Your task to perform on an android device: Go to eBay Image 0: 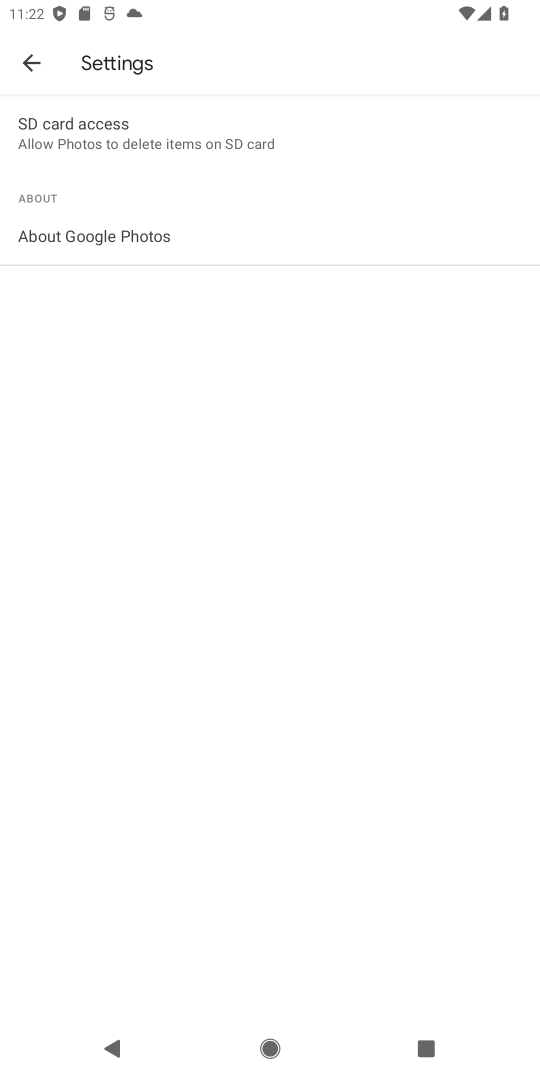
Step 0: press home button
Your task to perform on an android device: Go to eBay Image 1: 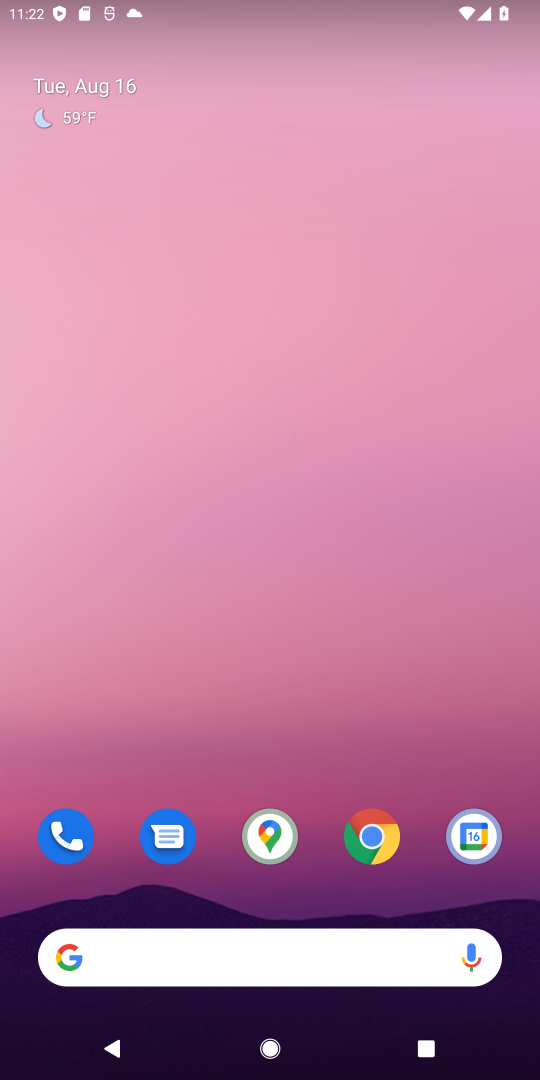
Step 1: drag from (207, 966) to (250, 132)
Your task to perform on an android device: Go to eBay Image 2: 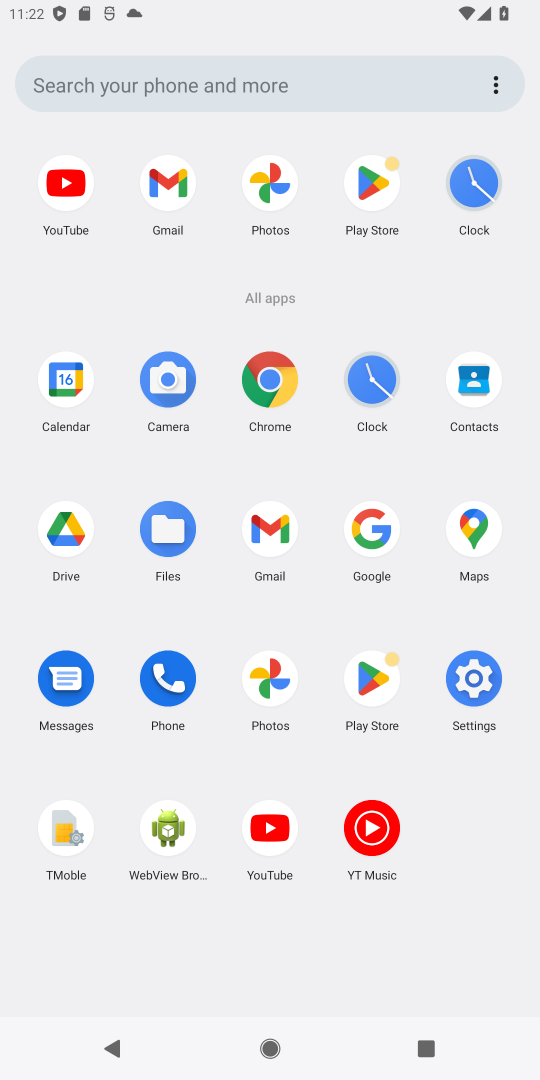
Step 2: click (367, 533)
Your task to perform on an android device: Go to eBay Image 3: 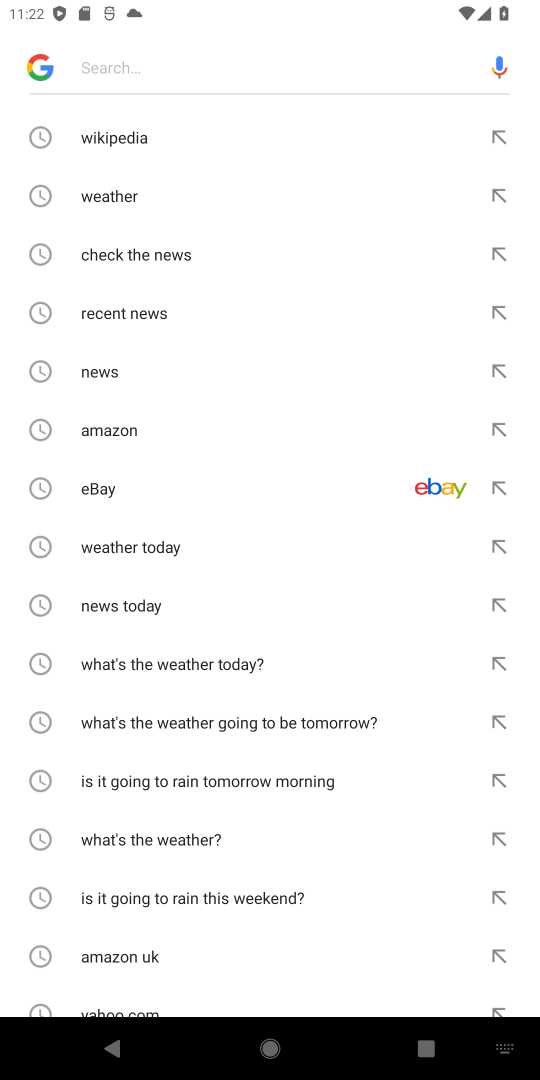
Step 3: click (104, 490)
Your task to perform on an android device: Go to eBay Image 4: 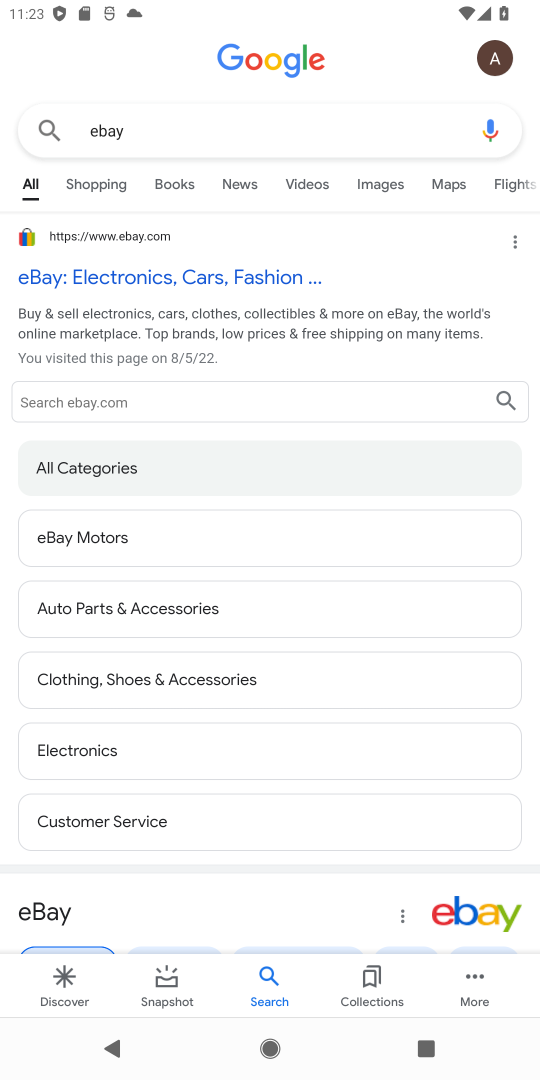
Step 4: click (95, 279)
Your task to perform on an android device: Go to eBay Image 5: 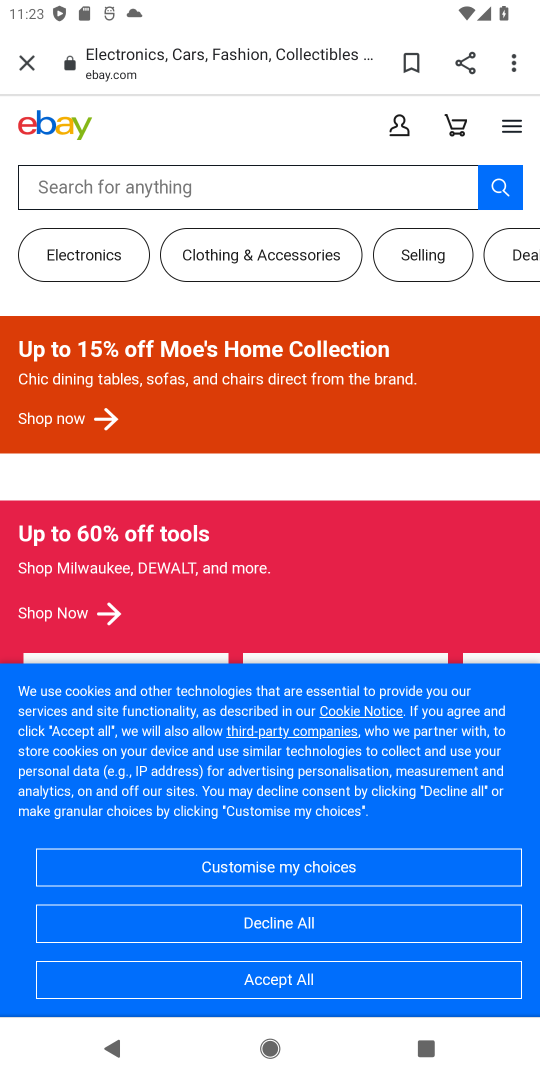
Step 5: task complete